Your task to perform on an android device: Go to Amazon Image 0: 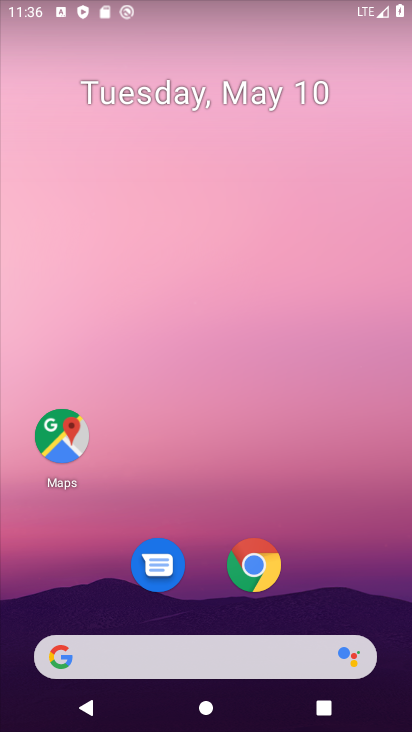
Step 0: click (240, 563)
Your task to perform on an android device: Go to Amazon Image 1: 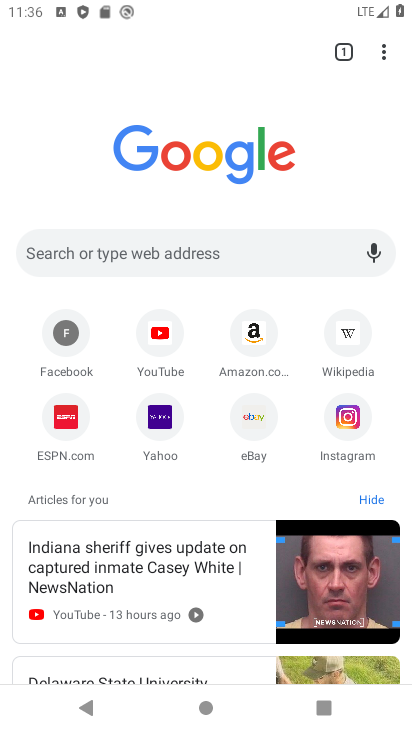
Step 1: click (244, 343)
Your task to perform on an android device: Go to Amazon Image 2: 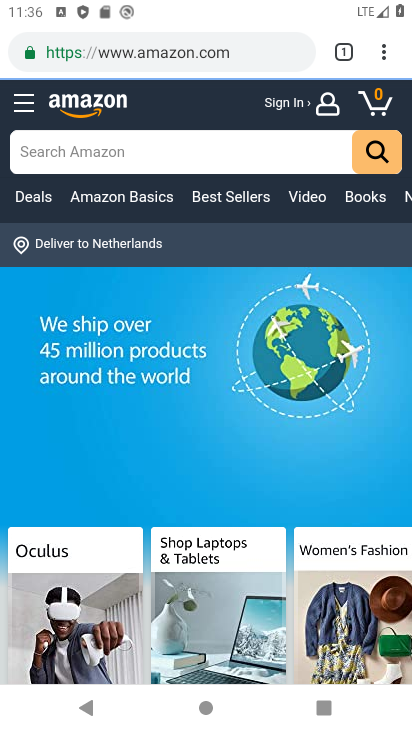
Step 2: task complete